Your task to perform on an android device: Is it going to rain this weekend? Image 0: 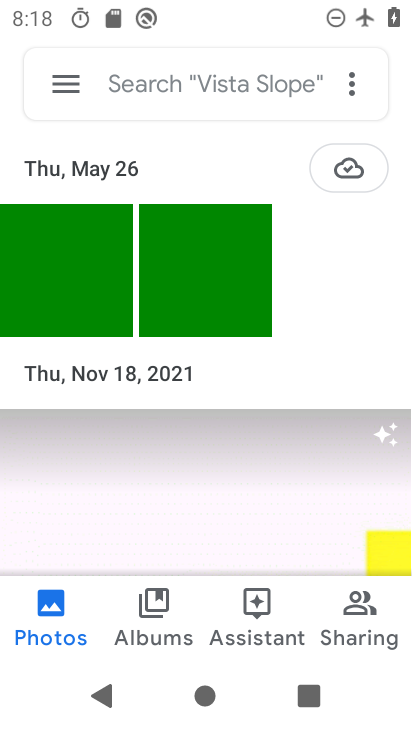
Step 0: press home button
Your task to perform on an android device: Is it going to rain this weekend? Image 1: 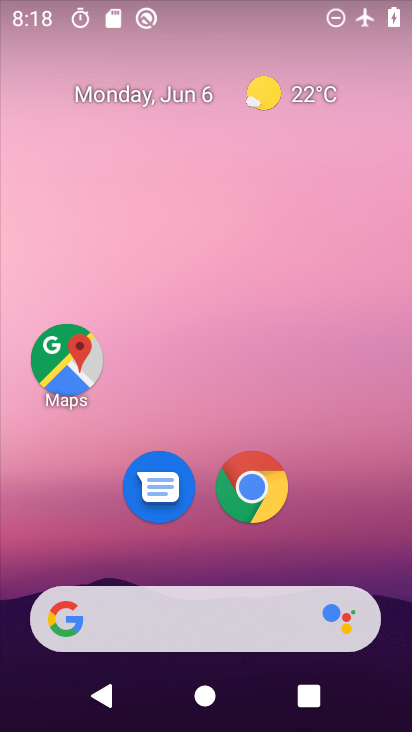
Step 1: drag from (386, 624) to (333, 31)
Your task to perform on an android device: Is it going to rain this weekend? Image 2: 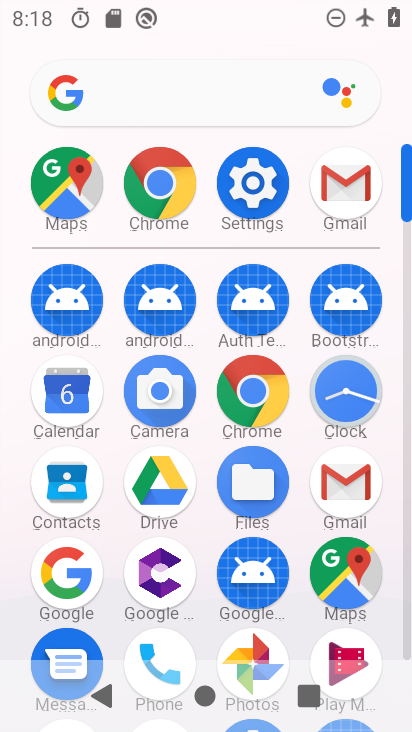
Step 2: click (67, 584)
Your task to perform on an android device: Is it going to rain this weekend? Image 3: 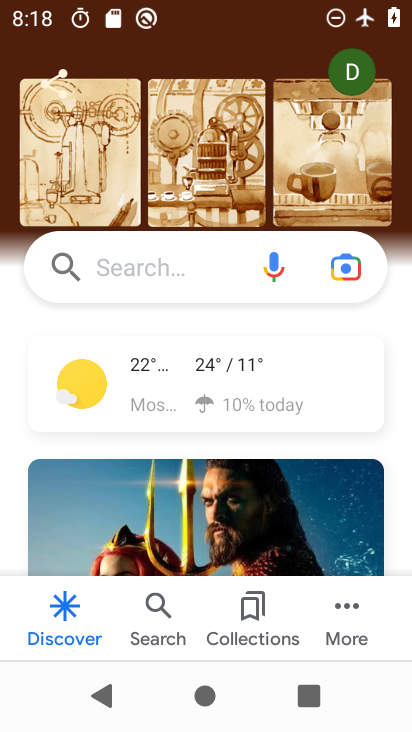
Step 3: click (132, 273)
Your task to perform on an android device: Is it going to rain this weekend? Image 4: 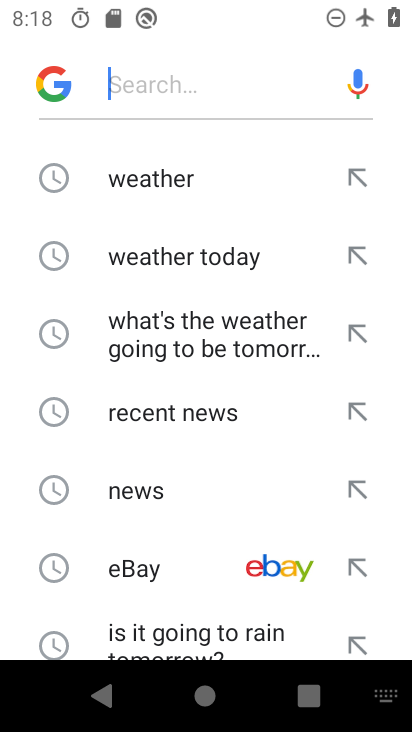
Step 4: drag from (186, 549) to (245, 224)
Your task to perform on an android device: Is it going to rain this weekend? Image 5: 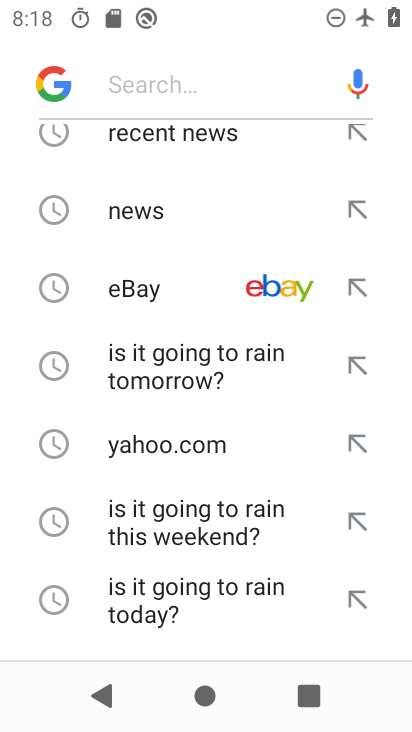
Step 5: click (208, 532)
Your task to perform on an android device: Is it going to rain this weekend? Image 6: 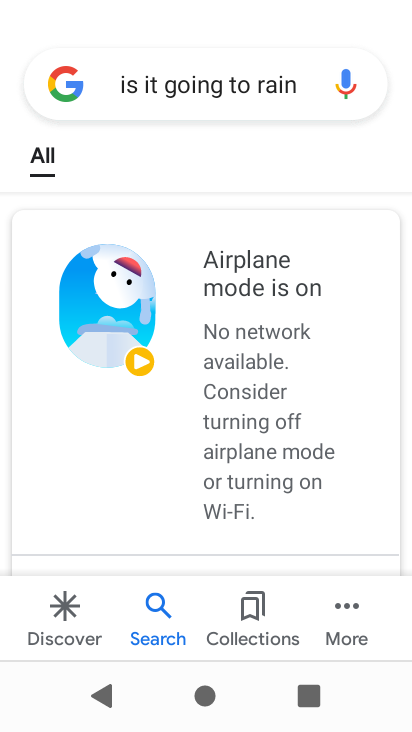
Step 6: task complete